Your task to perform on an android device: delete browsing data in the chrome app Image 0: 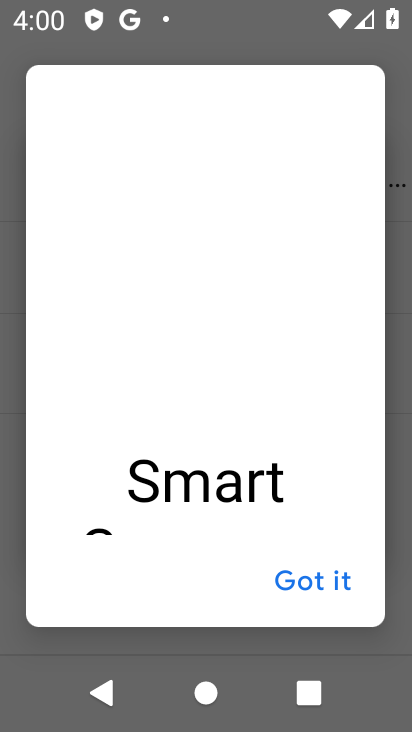
Step 0: press home button
Your task to perform on an android device: delete browsing data in the chrome app Image 1: 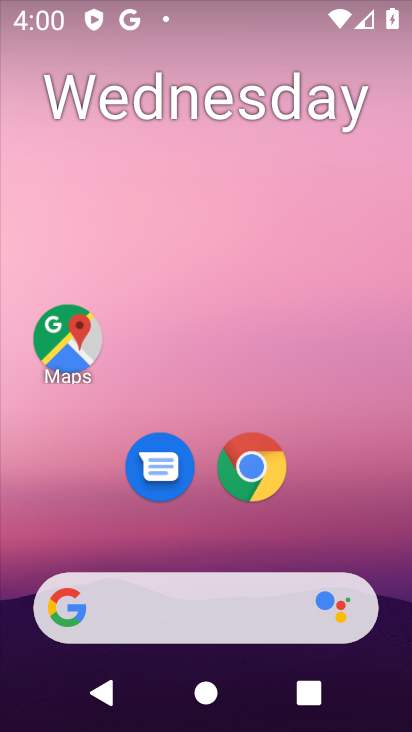
Step 1: drag from (200, 529) to (253, 47)
Your task to perform on an android device: delete browsing data in the chrome app Image 2: 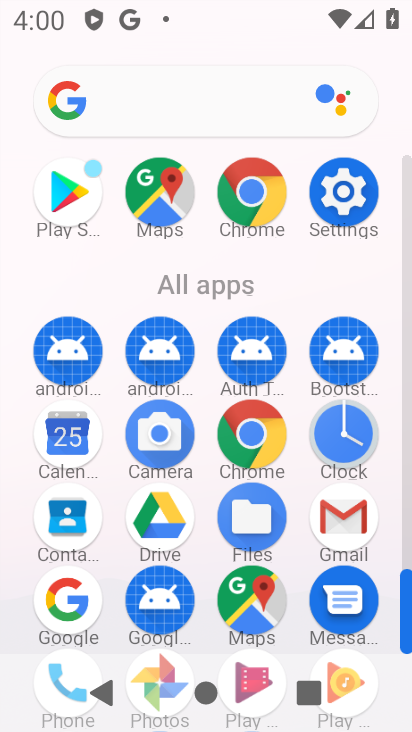
Step 2: click (252, 432)
Your task to perform on an android device: delete browsing data in the chrome app Image 3: 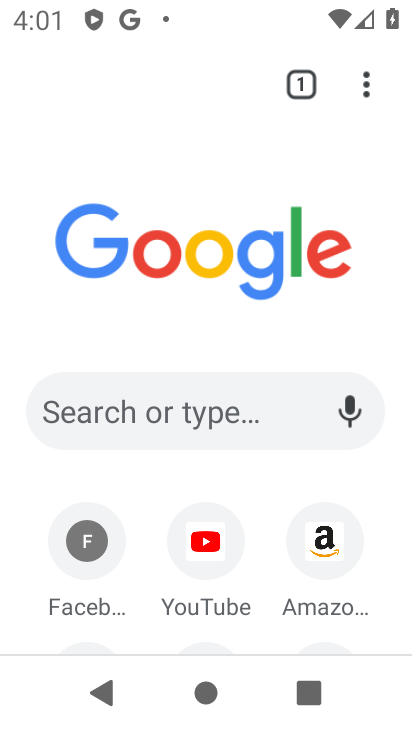
Step 3: click (359, 84)
Your task to perform on an android device: delete browsing data in the chrome app Image 4: 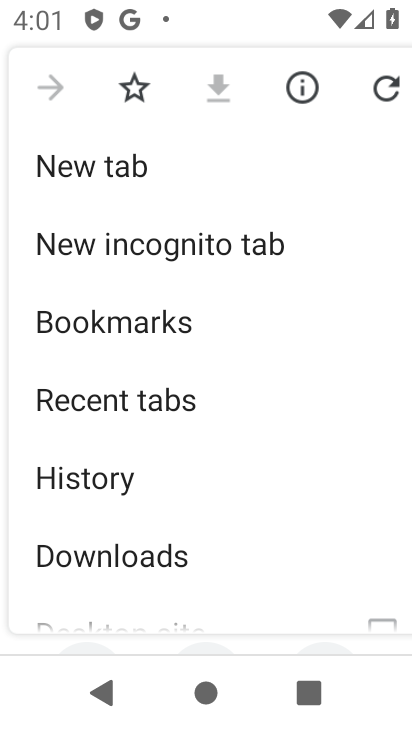
Step 4: drag from (177, 473) to (208, 246)
Your task to perform on an android device: delete browsing data in the chrome app Image 5: 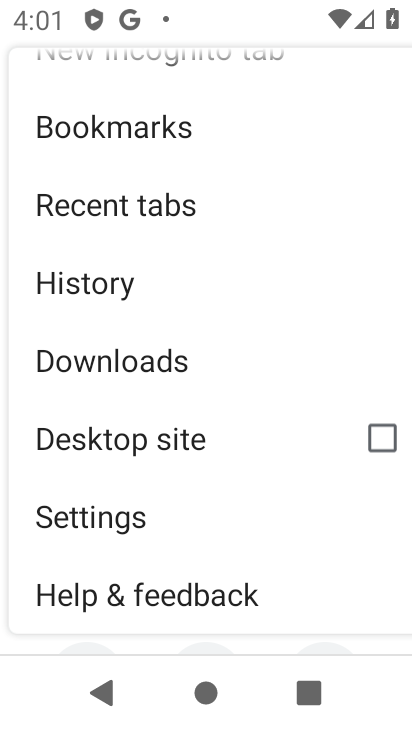
Step 5: click (107, 282)
Your task to perform on an android device: delete browsing data in the chrome app Image 6: 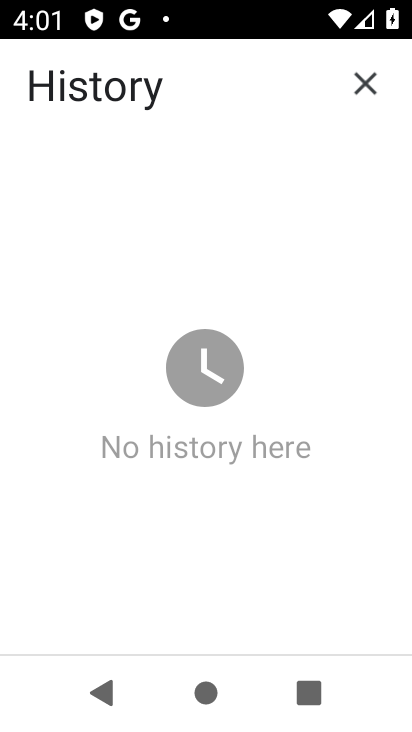
Step 6: task complete